Your task to perform on an android device: Show me recent news Image 0: 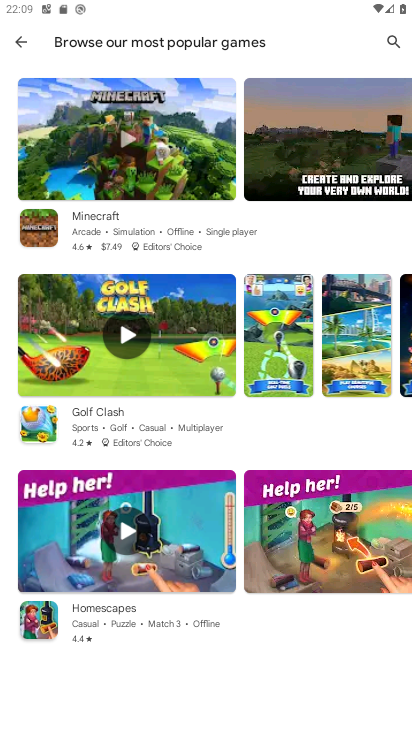
Step 0: press home button
Your task to perform on an android device: Show me recent news Image 1: 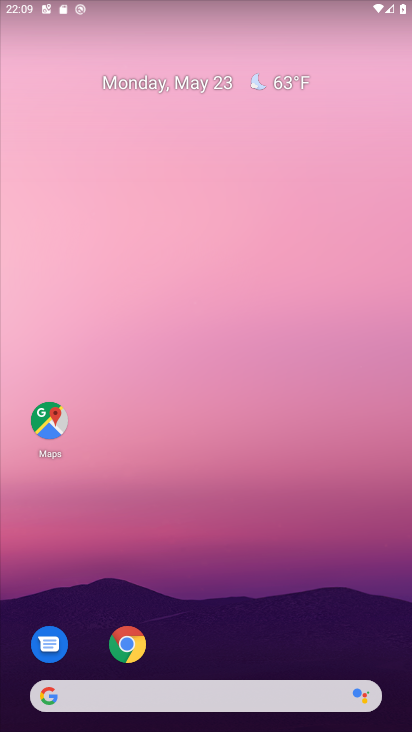
Step 1: task complete